Your task to perform on an android device: Open Reddit.com Image 0: 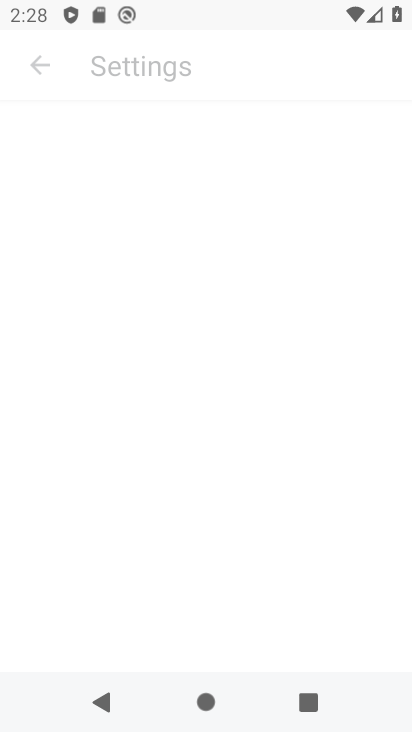
Step 0: drag from (272, 575) to (223, 4)
Your task to perform on an android device: Open Reddit.com Image 1: 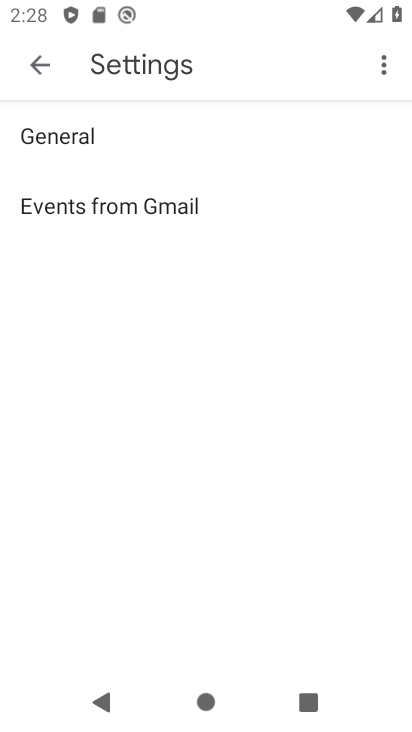
Step 1: press home button
Your task to perform on an android device: Open Reddit.com Image 2: 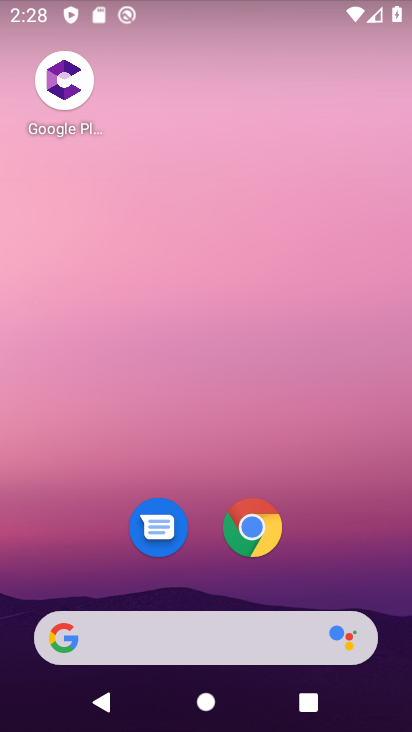
Step 2: drag from (243, 595) to (192, 113)
Your task to perform on an android device: Open Reddit.com Image 3: 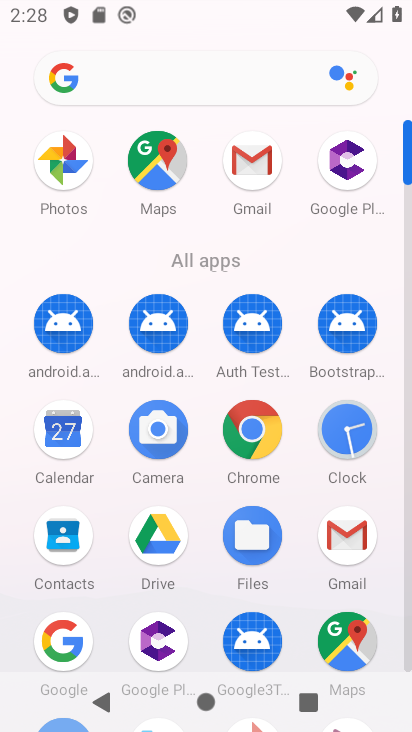
Step 3: click (262, 478)
Your task to perform on an android device: Open Reddit.com Image 4: 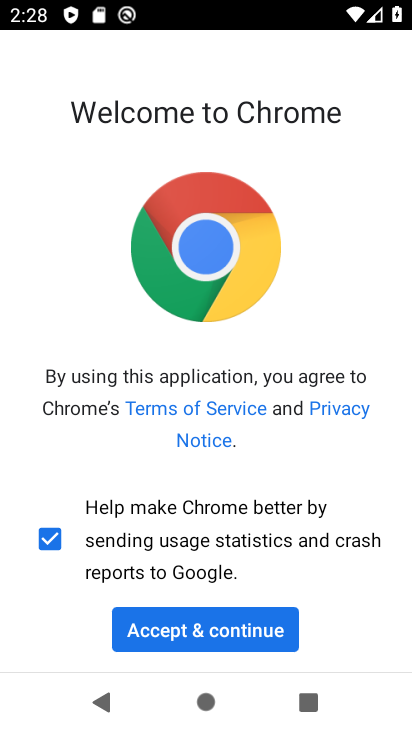
Step 4: click (206, 616)
Your task to perform on an android device: Open Reddit.com Image 5: 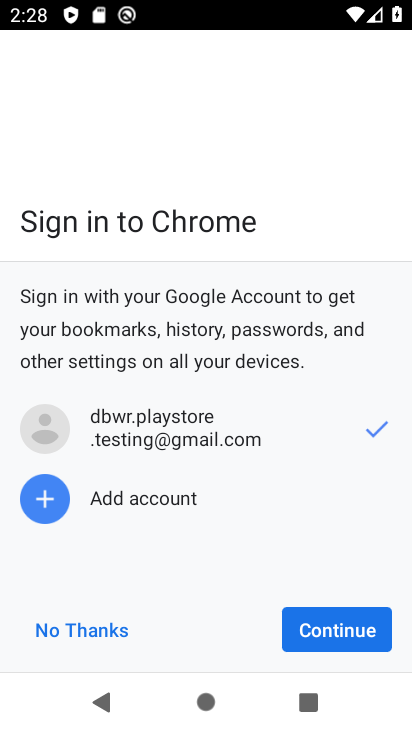
Step 5: click (332, 638)
Your task to perform on an android device: Open Reddit.com Image 6: 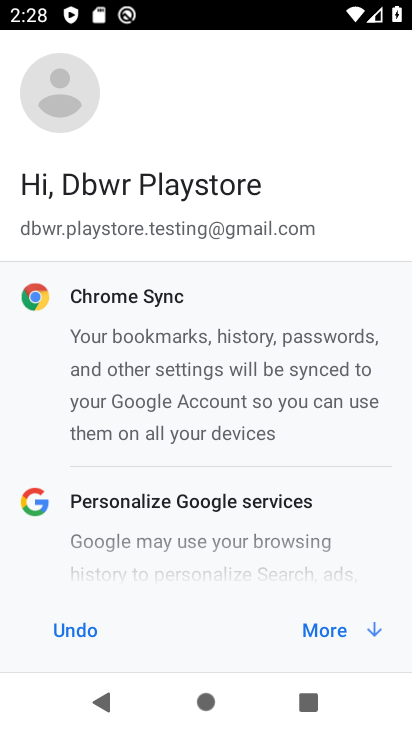
Step 6: click (324, 618)
Your task to perform on an android device: Open Reddit.com Image 7: 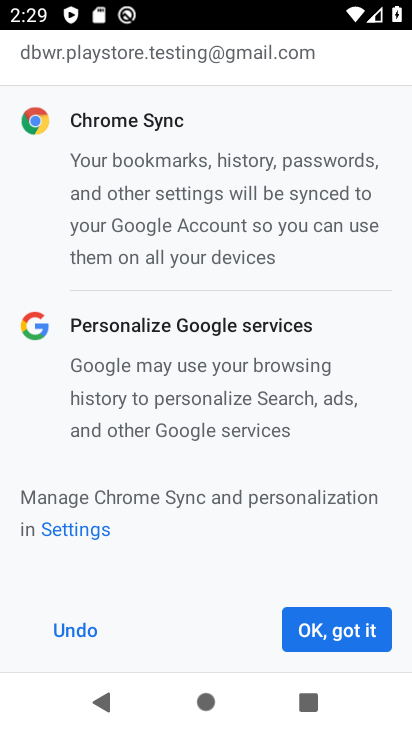
Step 7: click (322, 615)
Your task to perform on an android device: Open Reddit.com Image 8: 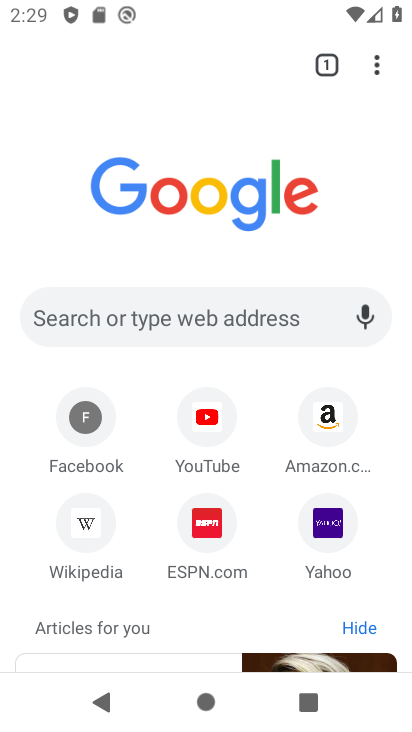
Step 8: click (108, 327)
Your task to perform on an android device: Open Reddit.com Image 9: 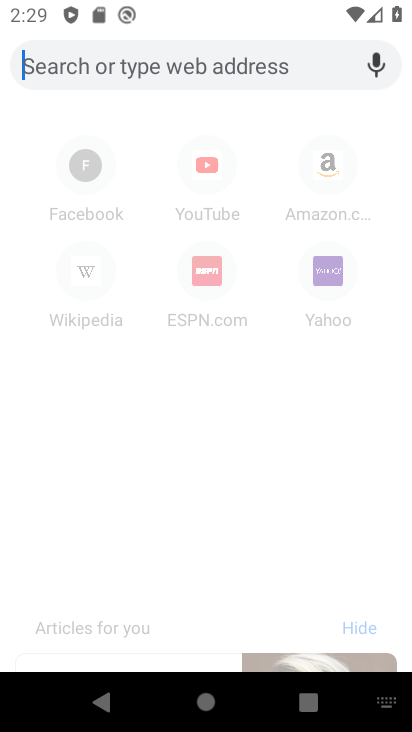
Step 9: type "www.reddit.com"
Your task to perform on an android device: Open Reddit.com Image 10: 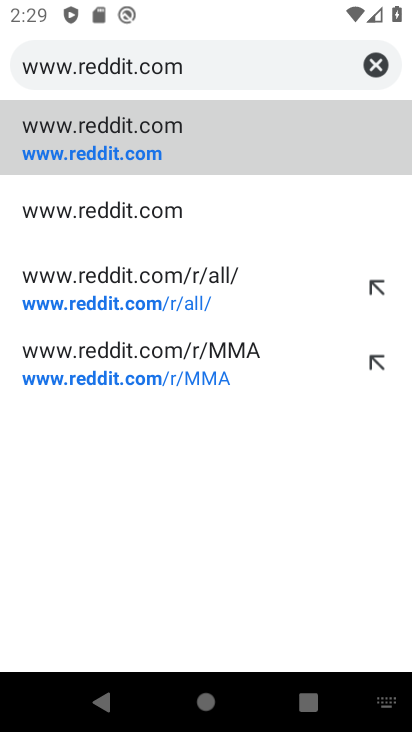
Step 10: click (85, 143)
Your task to perform on an android device: Open Reddit.com Image 11: 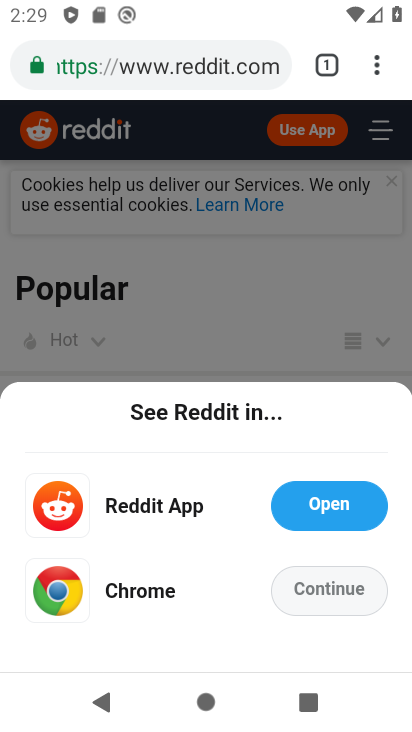
Step 11: click (330, 577)
Your task to perform on an android device: Open Reddit.com Image 12: 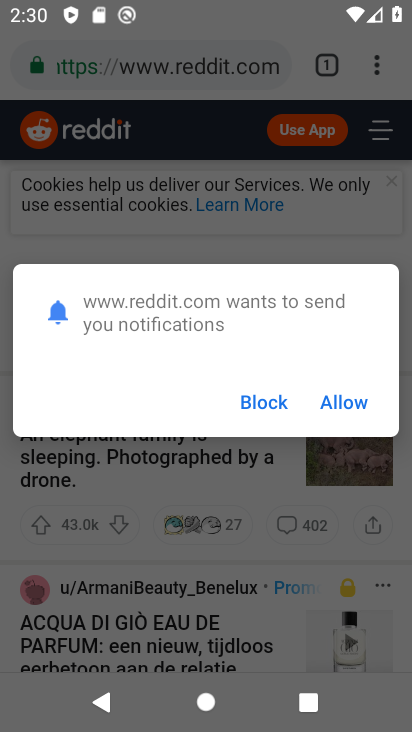
Step 12: click (260, 407)
Your task to perform on an android device: Open Reddit.com Image 13: 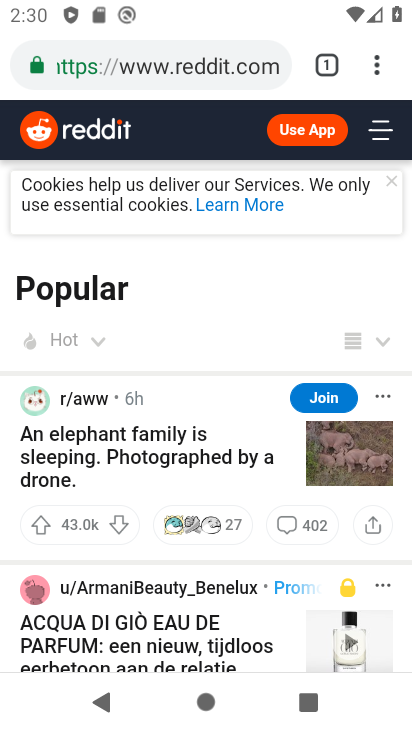
Step 13: task complete